Your task to perform on an android device: delete a single message in the gmail app Image 0: 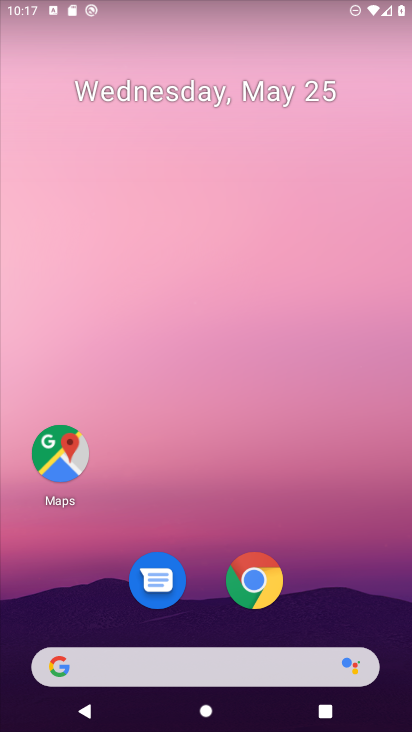
Step 0: drag from (22, 536) to (251, 102)
Your task to perform on an android device: delete a single message in the gmail app Image 1: 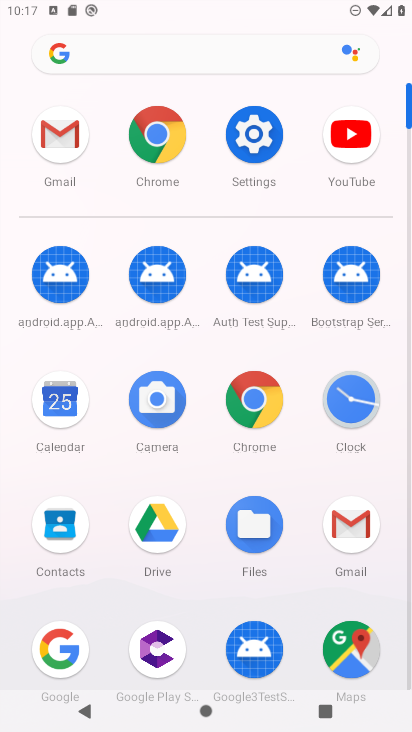
Step 1: click (77, 134)
Your task to perform on an android device: delete a single message in the gmail app Image 2: 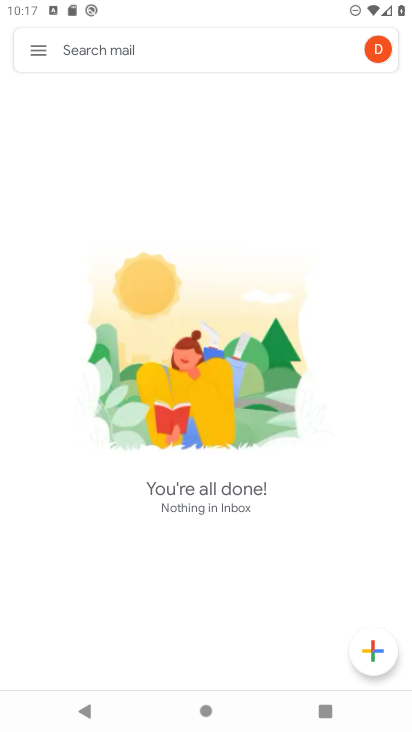
Step 2: click (26, 52)
Your task to perform on an android device: delete a single message in the gmail app Image 3: 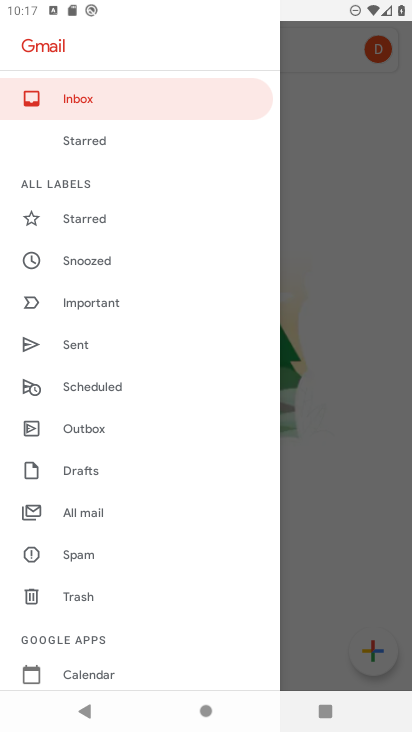
Step 3: drag from (20, 588) to (280, 166)
Your task to perform on an android device: delete a single message in the gmail app Image 4: 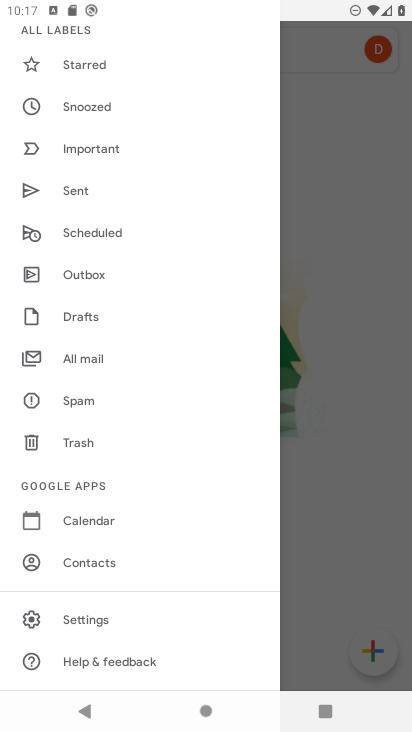
Step 4: click (162, 624)
Your task to perform on an android device: delete a single message in the gmail app Image 5: 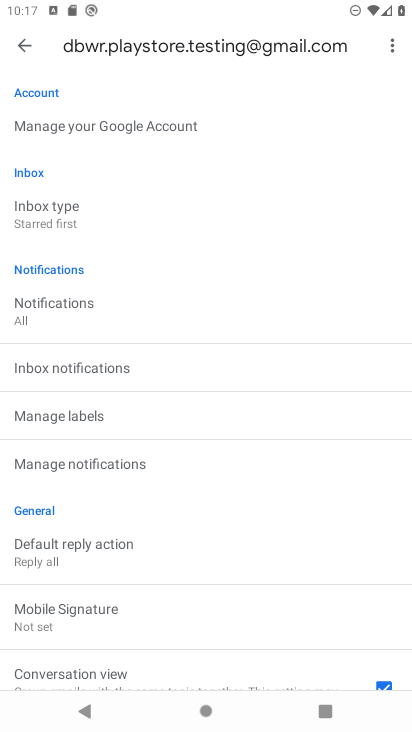
Step 5: task complete